Your task to perform on an android device: turn off translation in the chrome app Image 0: 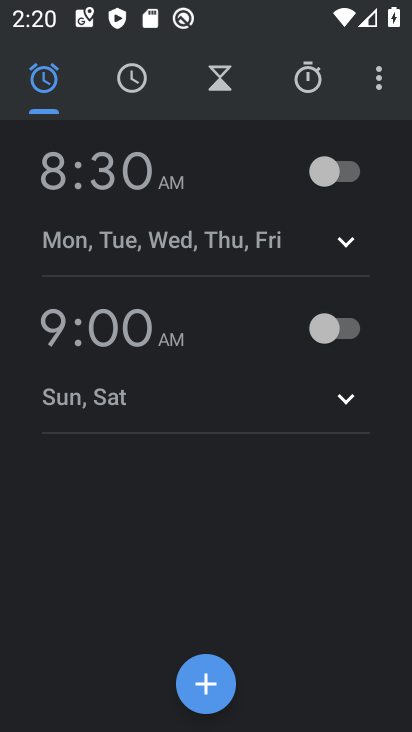
Step 0: press home button
Your task to perform on an android device: turn off translation in the chrome app Image 1: 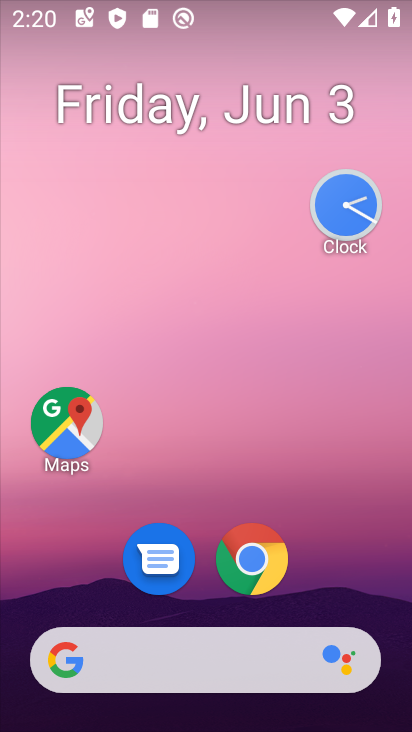
Step 1: click (277, 567)
Your task to perform on an android device: turn off translation in the chrome app Image 2: 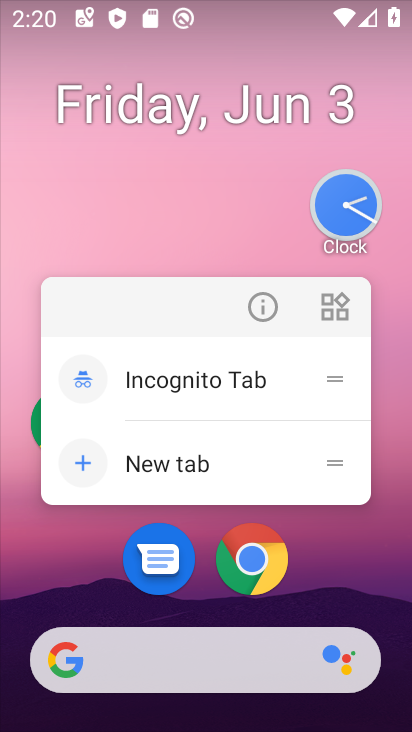
Step 2: click (264, 549)
Your task to perform on an android device: turn off translation in the chrome app Image 3: 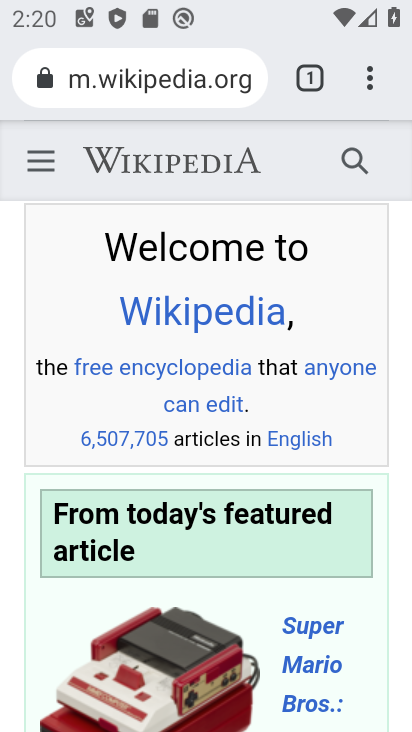
Step 3: click (382, 69)
Your task to perform on an android device: turn off translation in the chrome app Image 4: 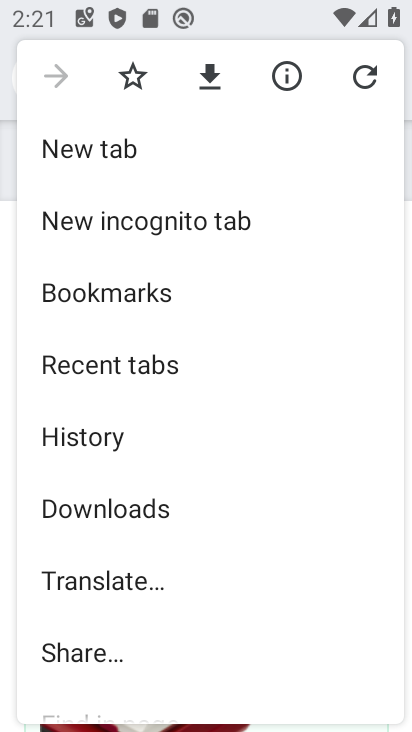
Step 4: drag from (197, 615) to (202, 523)
Your task to perform on an android device: turn off translation in the chrome app Image 5: 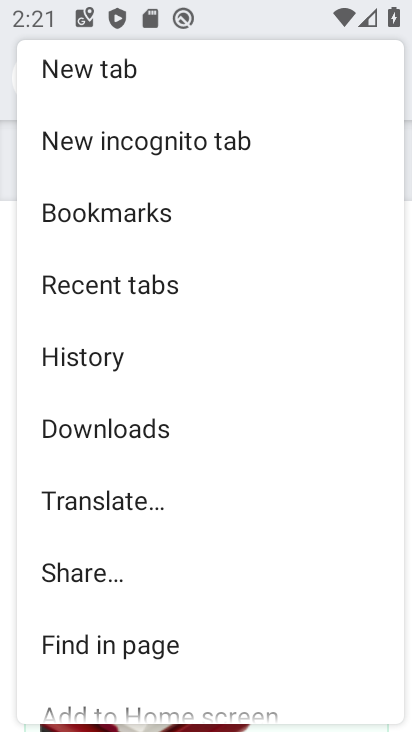
Step 5: drag from (176, 634) to (188, 433)
Your task to perform on an android device: turn off translation in the chrome app Image 6: 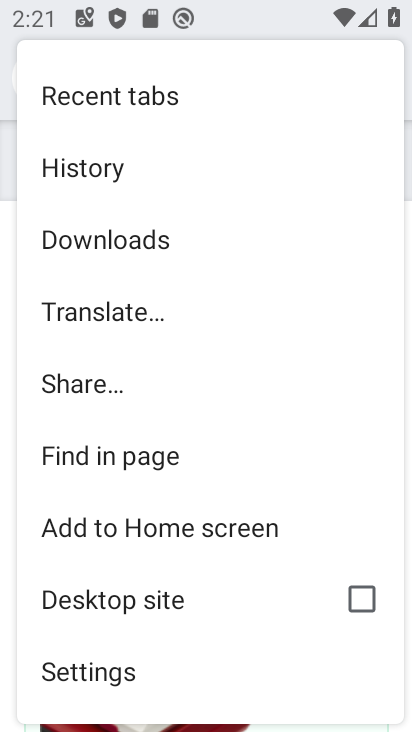
Step 6: click (153, 670)
Your task to perform on an android device: turn off translation in the chrome app Image 7: 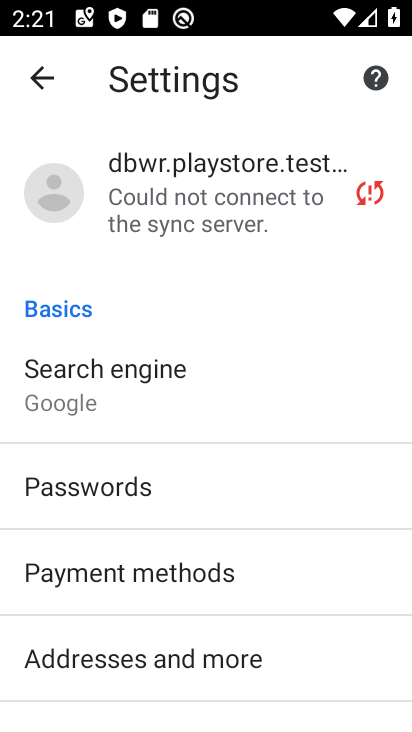
Step 7: drag from (186, 635) to (191, 429)
Your task to perform on an android device: turn off translation in the chrome app Image 8: 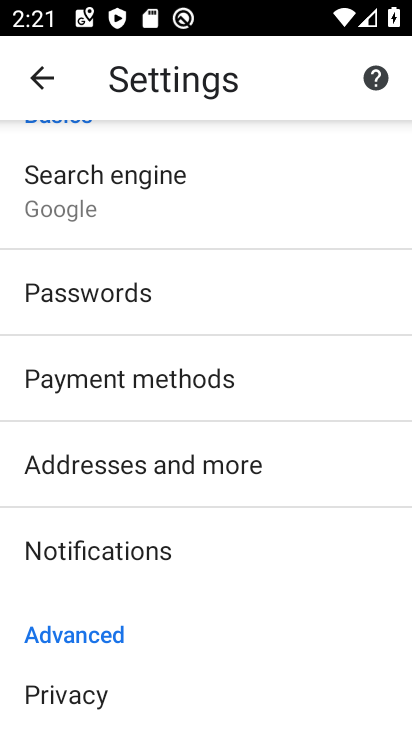
Step 8: drag from (152, 573) to (168, 226)
Your task to perform on an android device: turn off translation in the chrome app Image 9: 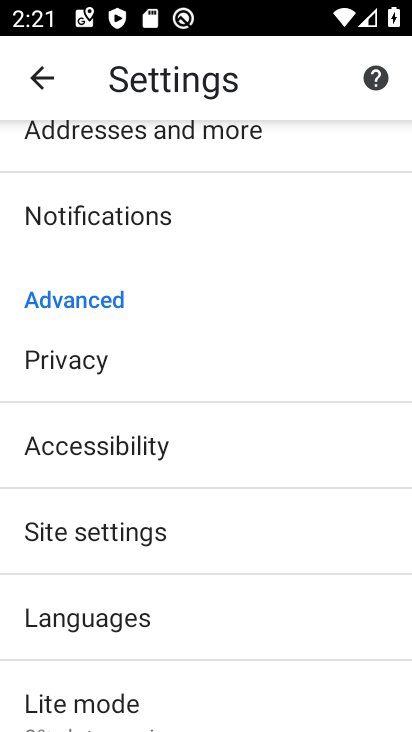
Step 9: click (113, 628)
Your task to perform on an android device: turn off translation in the chrome app Image 10: 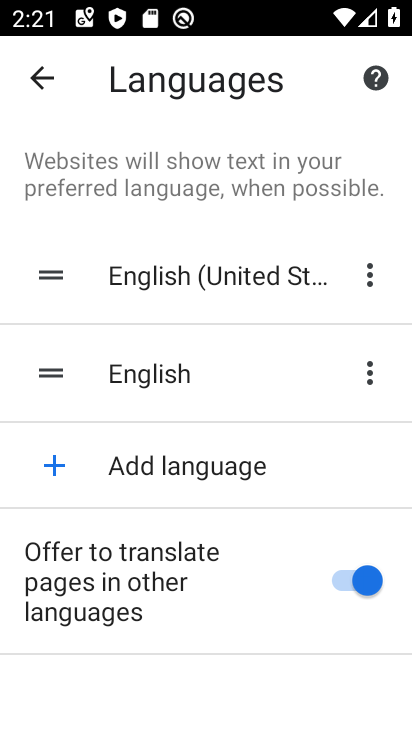
Step 10: click (349, 590)
Your task to perform on an android device: turn off translation in the chrome app Image 11: 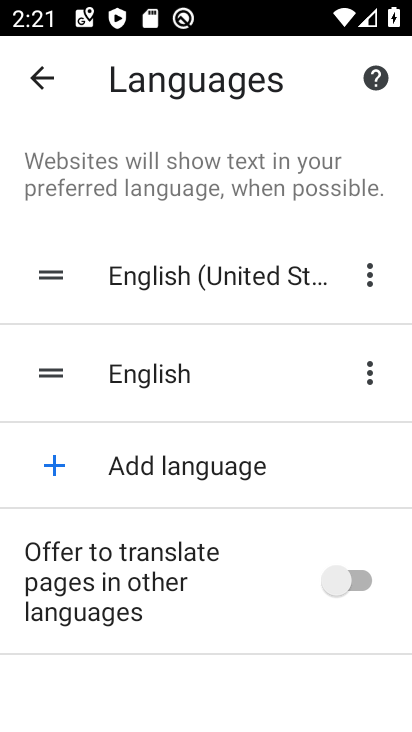
Step 11: task complete